Your task to perform on an android device: Open internet settings Image 0: 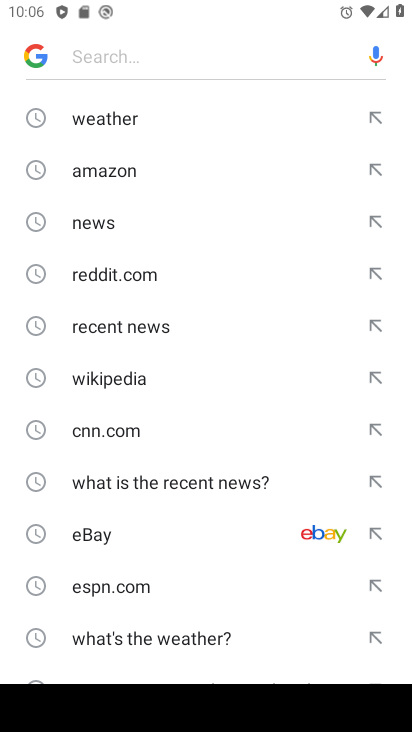
Step 0: press home button
Your task to perform on an android device: Open internet settings Image 1: 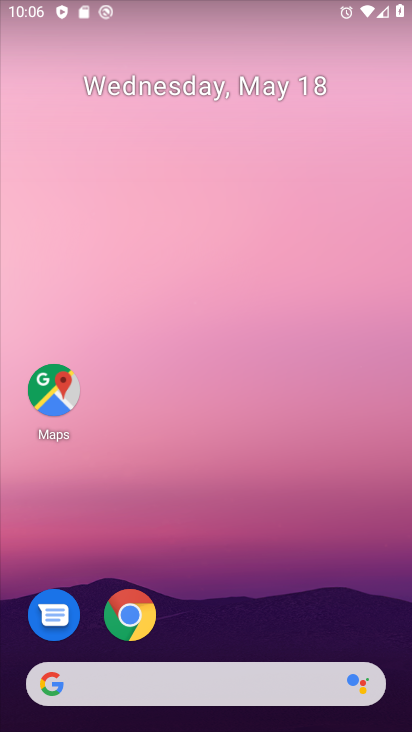
Step 1: drag from (186, 644) to (186, 310)
Your task to perform on an android device: Open internet settings Image 2: 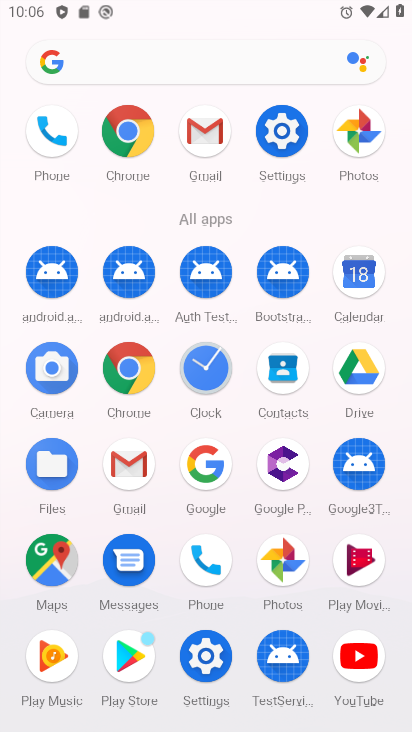
Step 2: click (294, 133)
Your task to perform on an android device: Open internet settings Image 3: 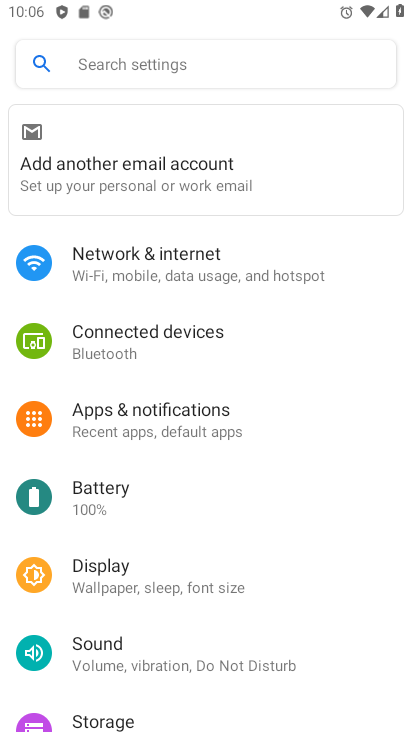
Step 3: click (112, 262)
Your task to perform on an android device: Open internet settings Image 4: 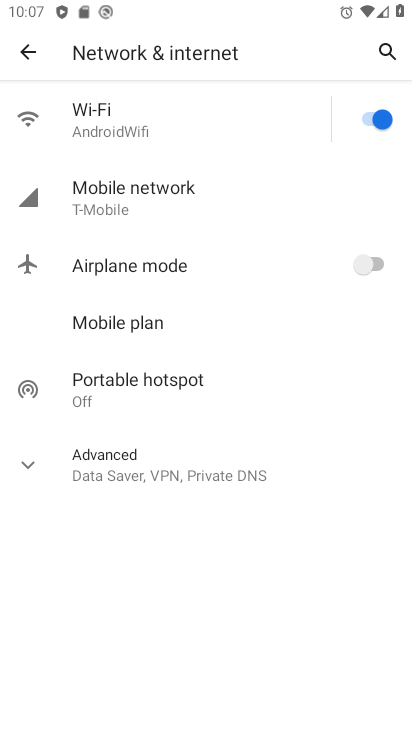
Step 4: click (107, 473)
Your task to perform on an android device: Open internet settings Image 5: 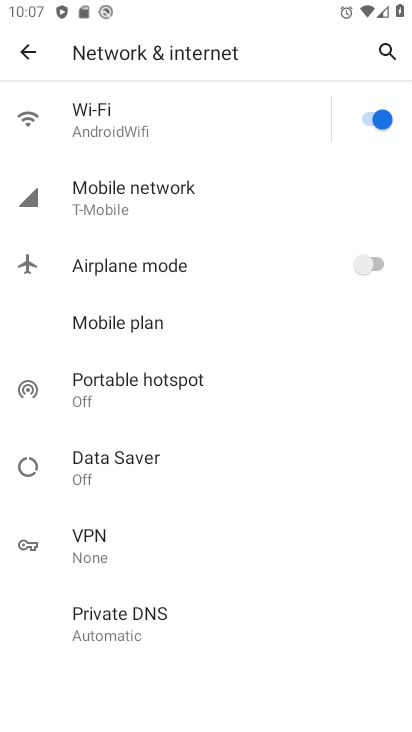
Step 5: click (150, 182)
Your task to perform on an android device: Open internet settings Image 6: 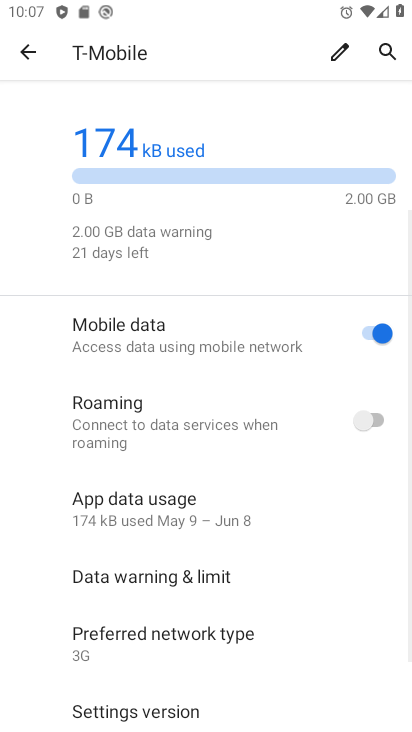
Step 6: task complete